Your task to perform on an android device: Open privacy settings Image 0: 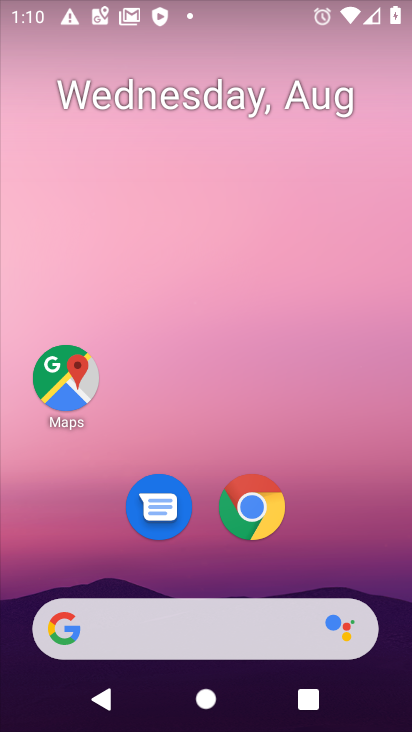
Step 0: click (230, 520)
Your task to perform on an android device: Open privacy settings Image 1: 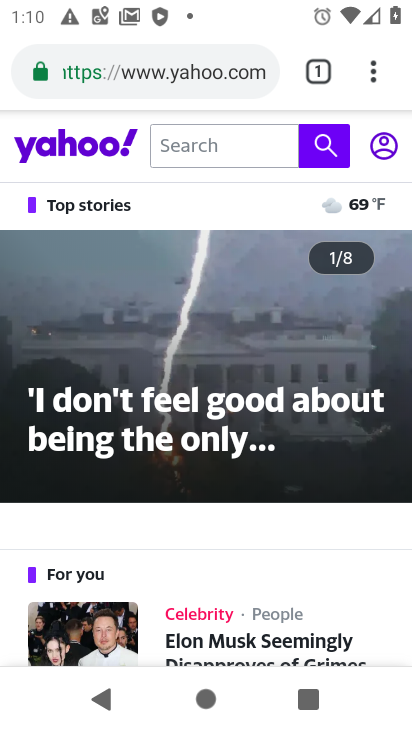
Step 1: press back button
Your task to perform on an android device: Open privacy settings Image 2: 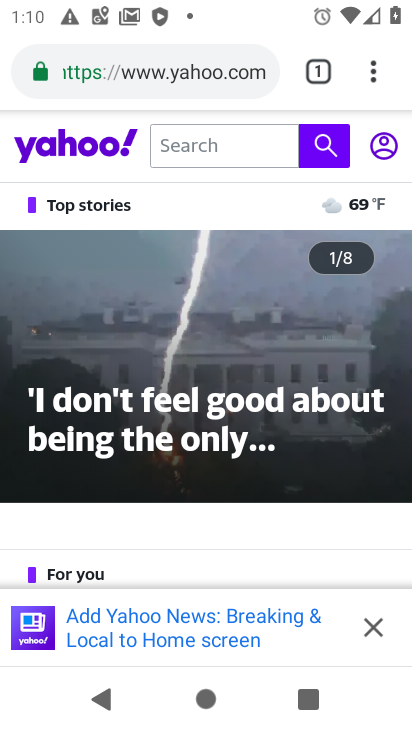
Step 2: press home button
Your task to perform on an android device: Open privacy settings Image 3: 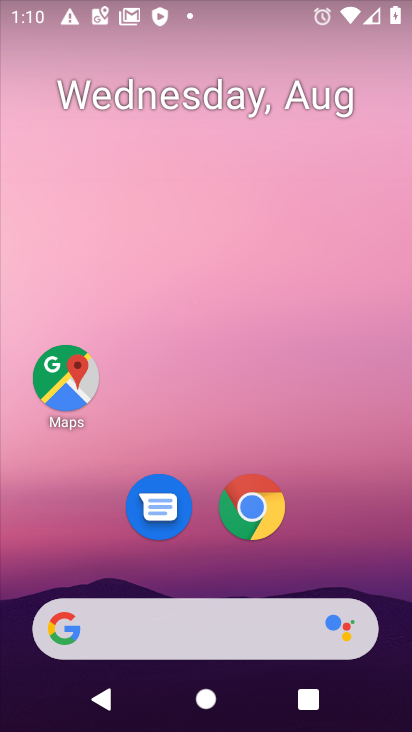
Step 3: drag from (205, 577) to (260, 478)
Your task to perform on an android device: Open privacy settings Image 4: 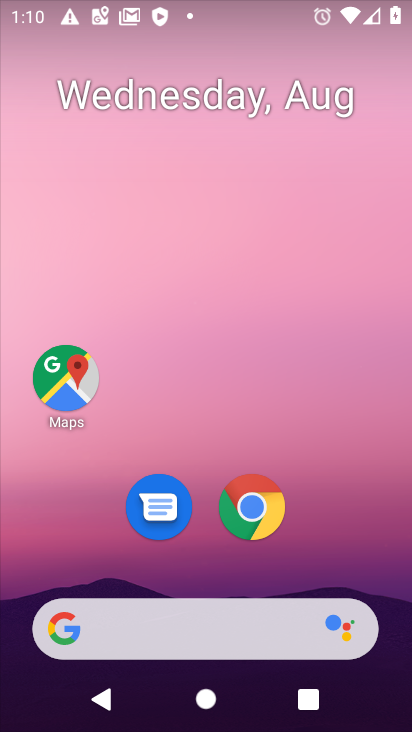
Step 4: drag from (243, 592) to (175, 9)
Your task to perform on an android device: Open privacy settings Image 5: 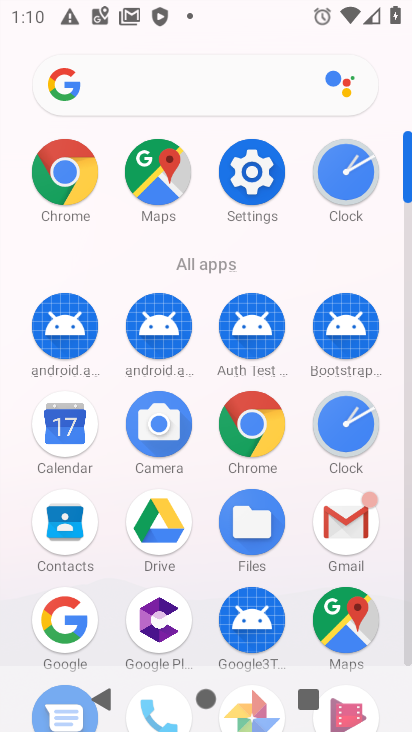
Step 5: click (247, 184)
Your task to perform on an android device: Open privacy settings Image 6: 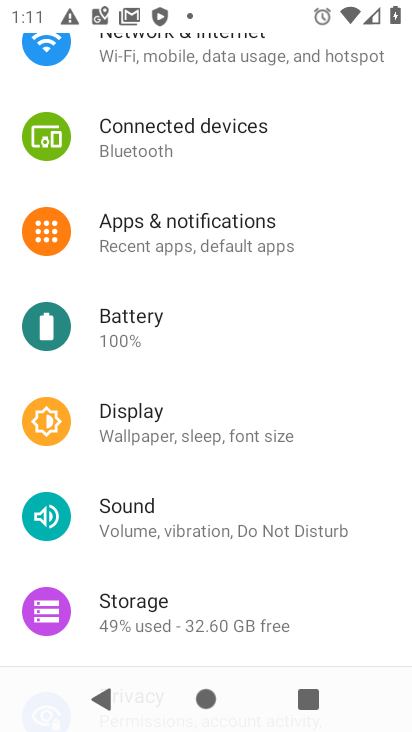
Step 6: drag from (115, 408) to (107, 100)
Your task to perform on an android device: Open privacy settings Image 7: 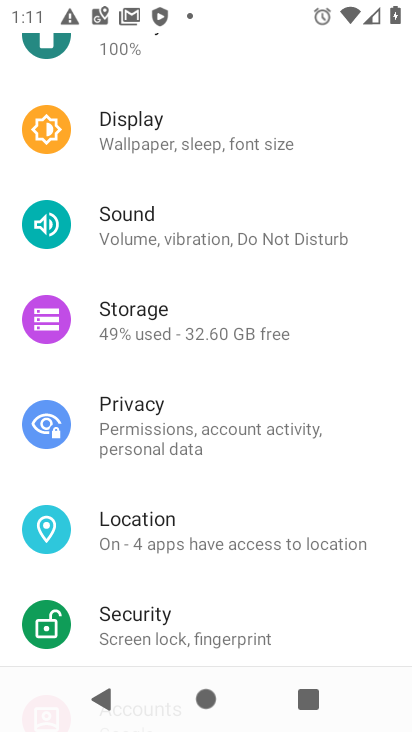
Step 7: click (149, 411)
Your task to perform on an android device: Open privacy settings Image 8: 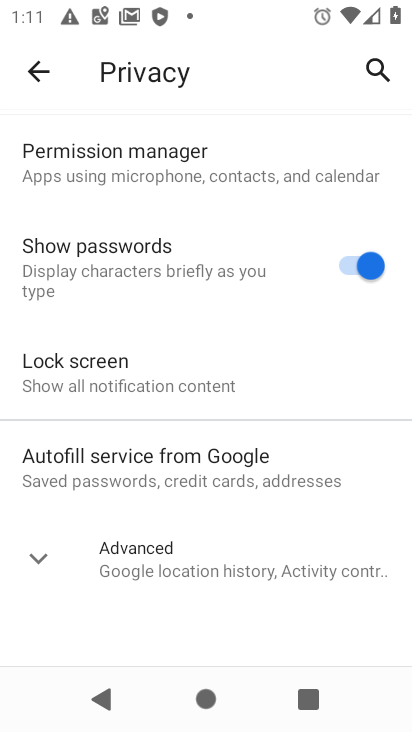
Step 8: task complete